Your task to perform on an android device: turn on the 24-hour format for clock Image 0: 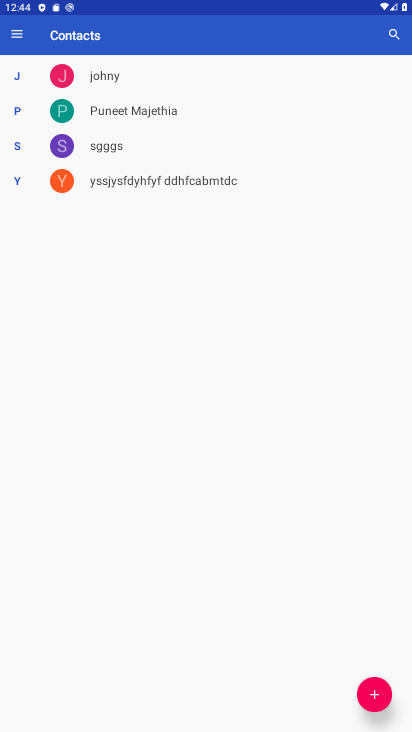
Step 0: drag from (179, 686) to (275, 229)
Your task to perform on an android device: turn on the 24-hour format for clock Image 1: 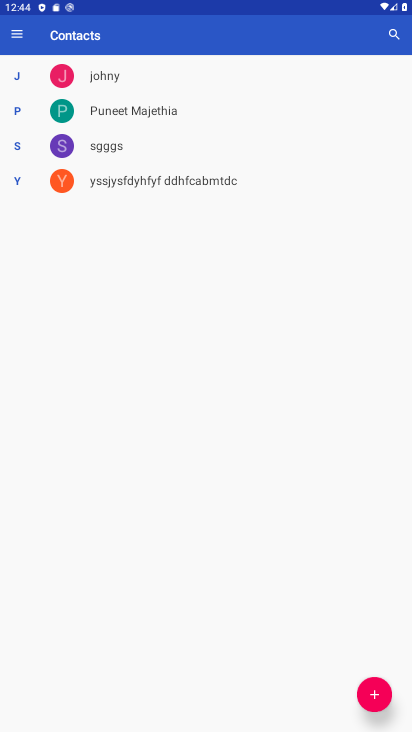
Step 1: press home button
Your task to perform on an android device: turn on the 24-hour format for clock Image 2: 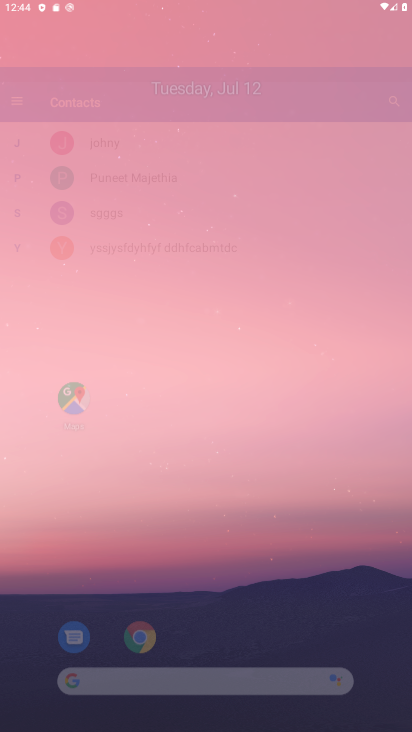
Step 2: drag from (258, 663) to (245, 204)
Your task to perform on an android device: turn on the 24-hour format for clock Image 3: 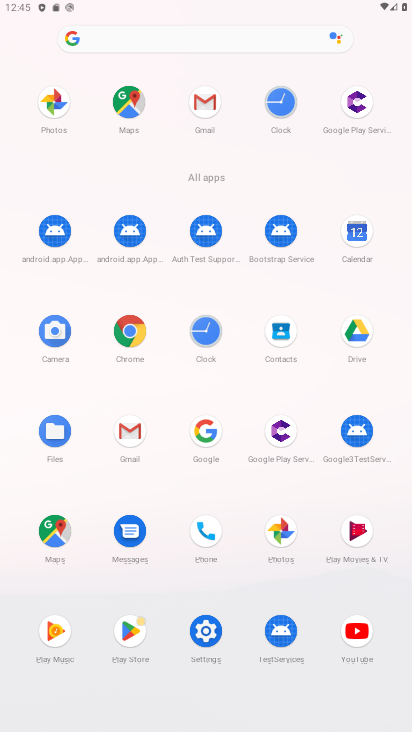
Step 3: click (200, 329)
Your task to perform on an android device: turn on the 24-hour format for clock Image 4: 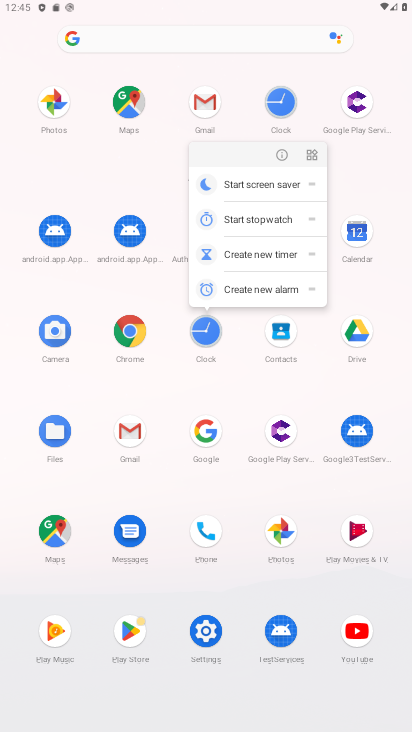
Step 4: click (275, 153)
Your task to perform on an android device: turn on the 24-hour format for clock Image 5: 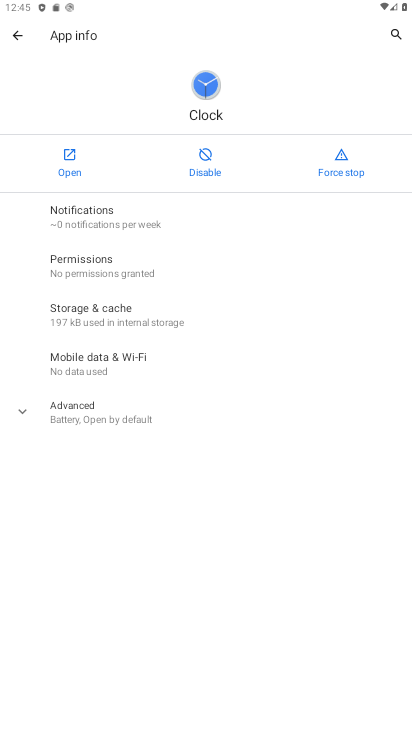
Step 5: click (68, 166)
Your task to perform on an android device: turn on the 24-hour format for clock Image 6: 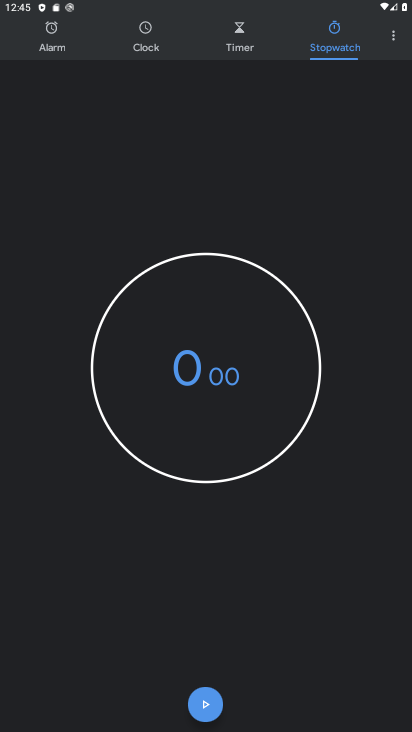
Step 6: click (402, 36)
Your task to perform on an android device: turn on the 24-hour format for clock Image 7: 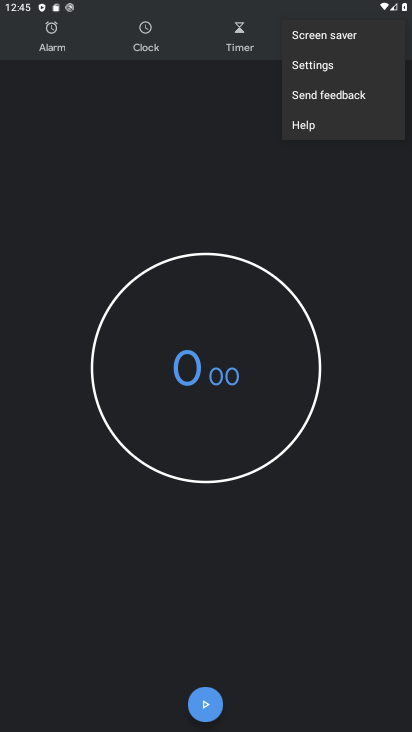
Step 7: click (315, 65)
Your task to perform on an android device: turn on the 24-hour format for clock Image 8: 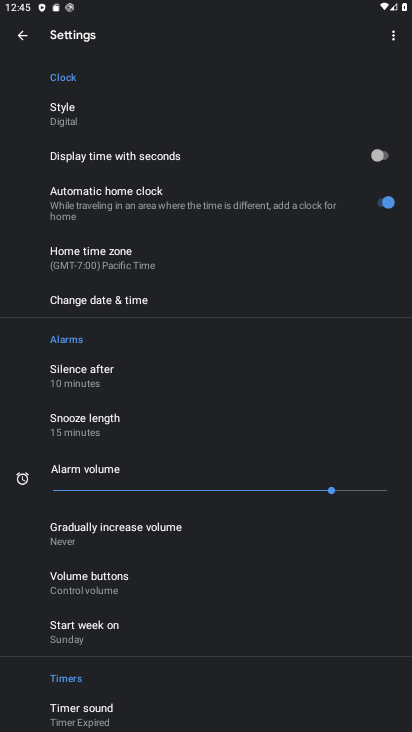
Step 8: click (148, 295)
Your task to perform on an android device: turn on the 24-hour format for clock Image 9: 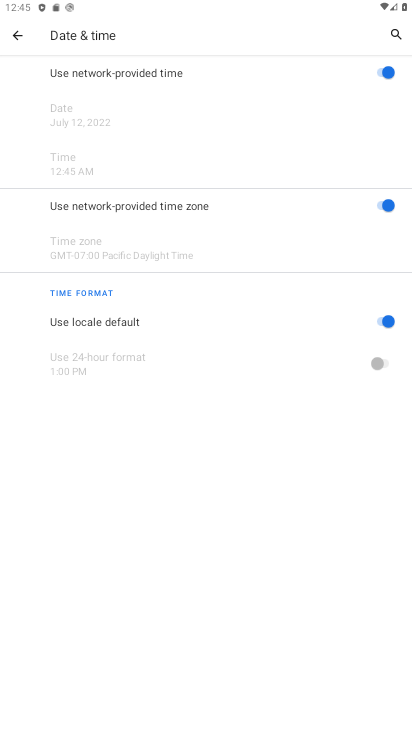
Step 9: drag from (206, 577) to (270, 259)
Your task to perform on an android device: turn on the 24-hour format for clock Image 10: 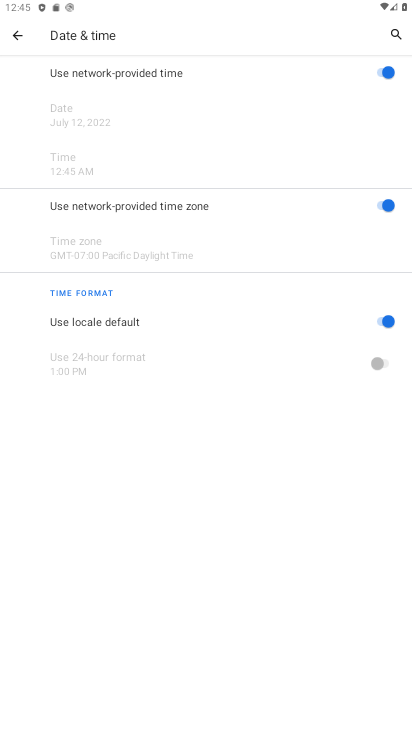
Step 10: drag from (216, 601) to (298, 266)
Your task to perform on an android device: turn on the 24-hour format for clock Image 11: 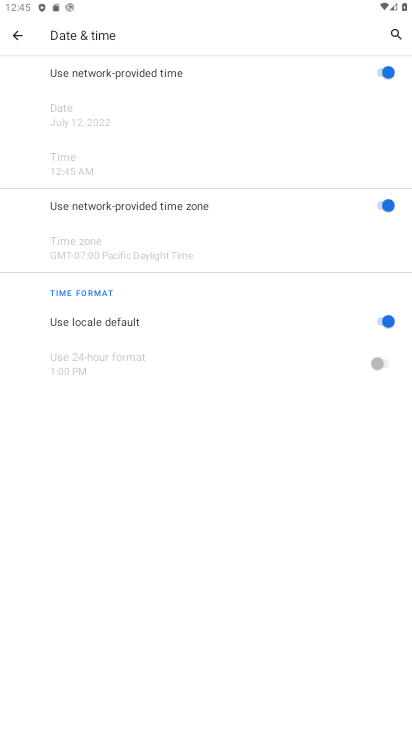
Step 11: click (390, 313)
Your task to perform on an android device: turn on the 24-hour format for clock Image 12: 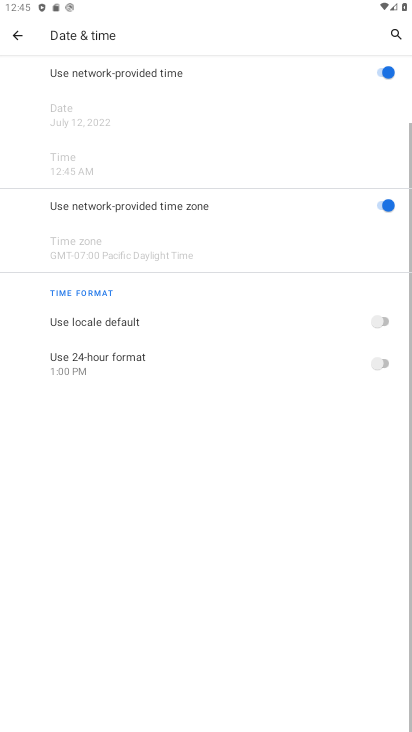
Step 12: click (374, 357)
Your task to perform on an android device: turn on the 24-hour format for clock Image 13: 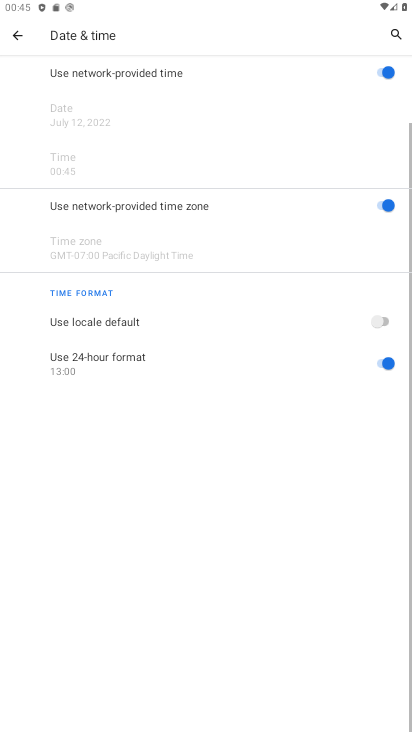
Step 13: task complete